Your task to perform on an android device: Open accessibility settings Image 0: 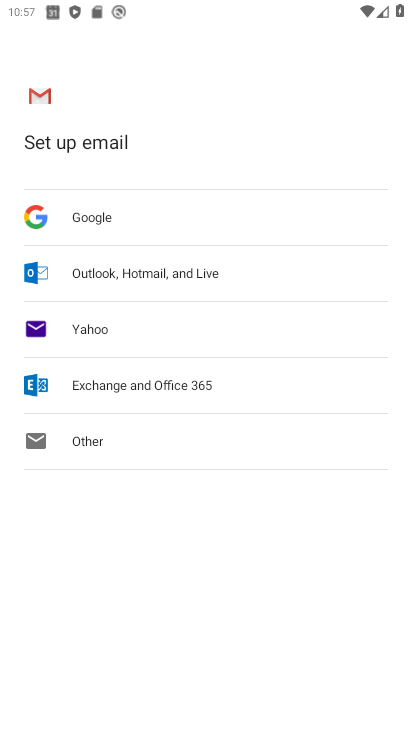
Step 0: press home button
Your task to perform on an android device: Open accessibility settings Image 1: 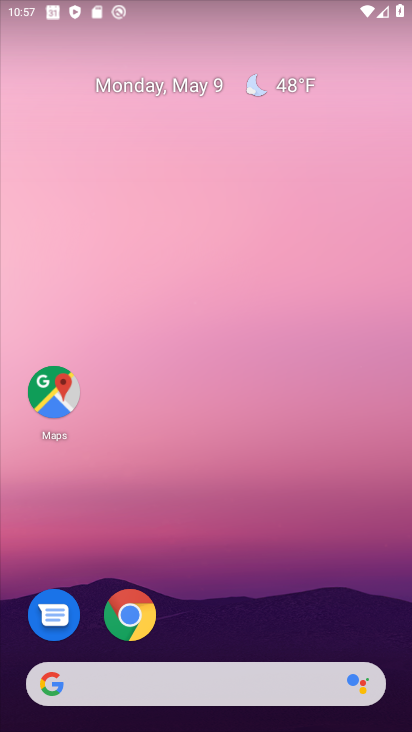
Step 1: drag from (260, 566) to (272, 46)
Your task to perform on an android device: Open accessibility settings Image 2: 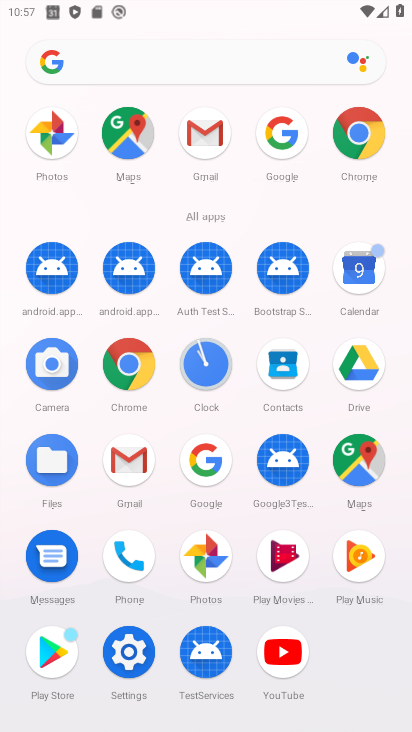
Step 2: click (130, 653)
Your task to perform on an android device: Open accessibility settings Image 3: 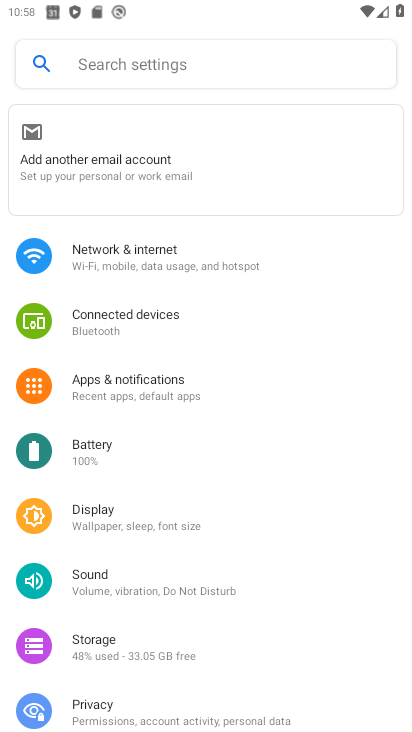
Step 3: drag from (175, 601) to (202, 179)
Your task to perform on an android device: Open accessibility settings Image 4: 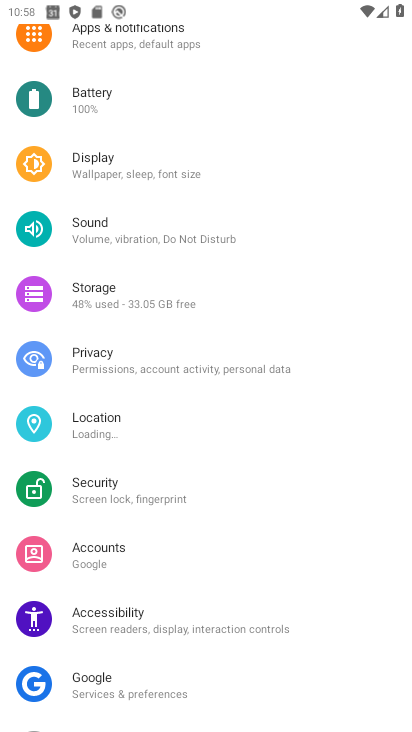
Step 4: click (154, 615)
Your task to perform on an android device: Open accessibility settings Image 5: 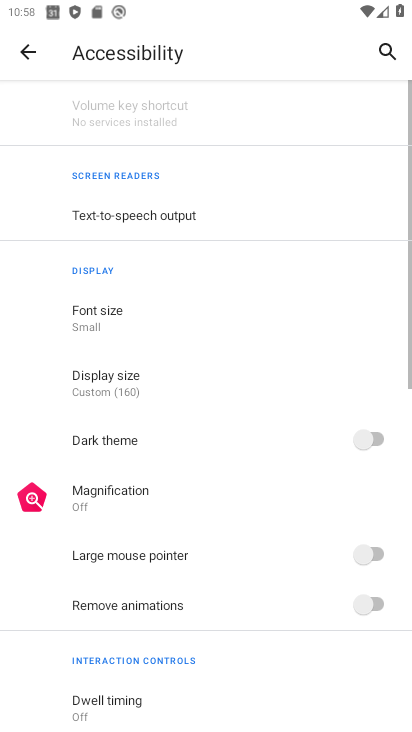
Step 5: task complete